Your task to perform on an android device: Go to Google maps Image 0: 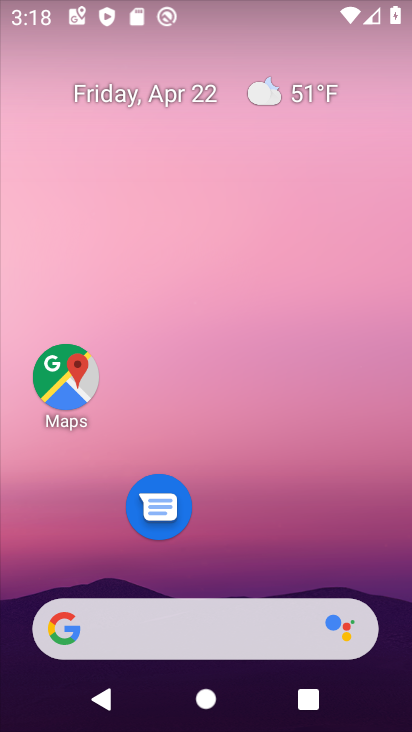
Step 0: click (49, 371)
Your task to perform on an android device: Go to Google maps Image 1: 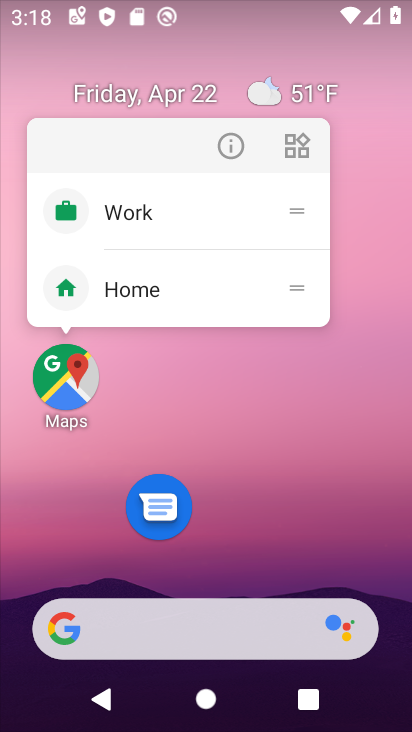
Step 1: click (60, 369)
Your task to perform on an android device: Go to Google maps Image 2: 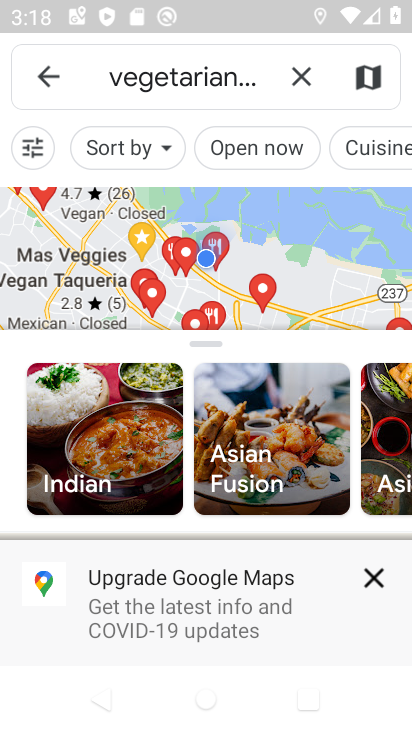
Step 2: task complete